Your task to perform on an android device: Open location settings Image 0: 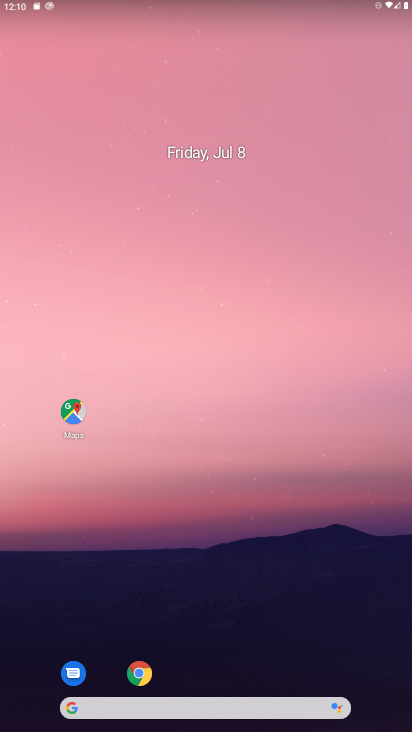
Step 0: drag from (376, 648) to (313, 86)
Your task to perform on an android device: Open location settings Image 1: 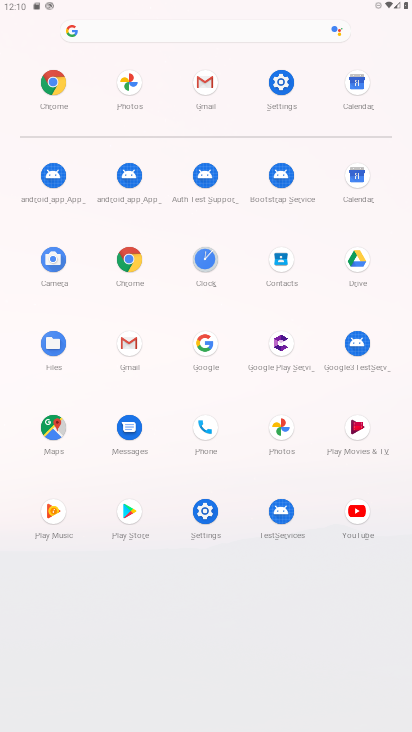
Step 1: click (285, 92)
Your task to perform on an android device: Open location settings Image 2: 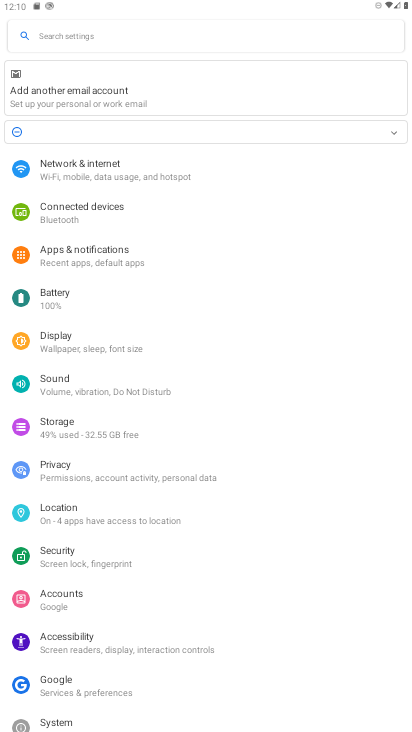
Step 2: click (43, 517)
Your task to perform on an android device: Open location settings Image 3: 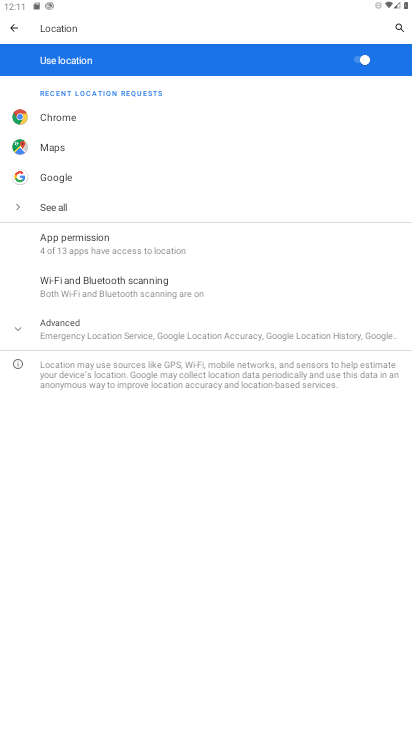
Step 3: click (14, 329)
Your task to perform on an android device: Open location settings Image 4: 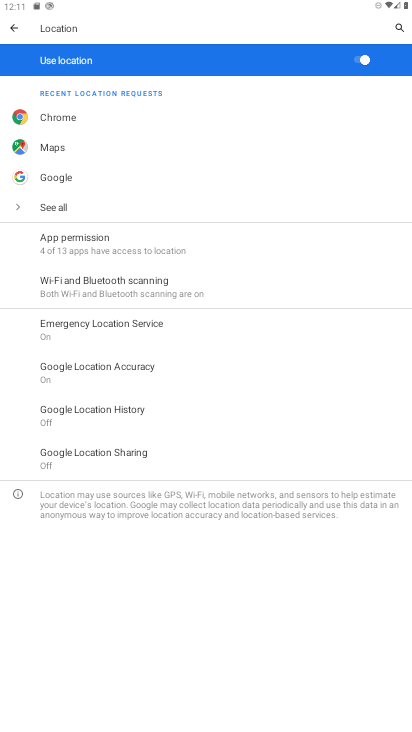
Step 4: task complete